Your task to perform on an android device: Open Google Maps and go to "Timeline" Image 0: 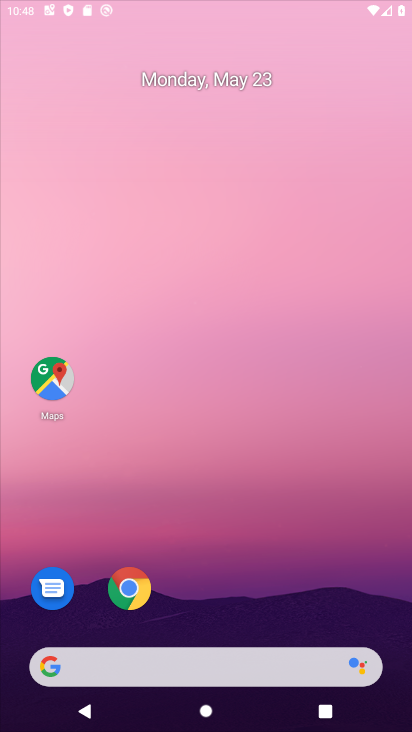
Step 0: press home button
Your task to perform on an android device: Open Google Maps and go to "Timeline" Image 1: 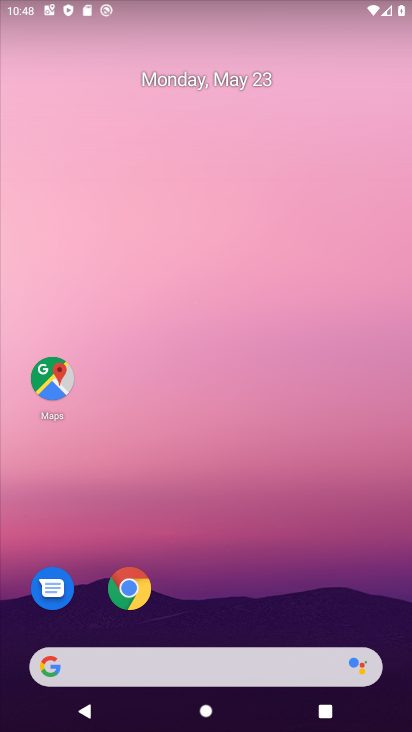
Step 1: click (48, 382)
Your task to perform on an android device: Open Google Maps and go to "Timeline" Image 2: 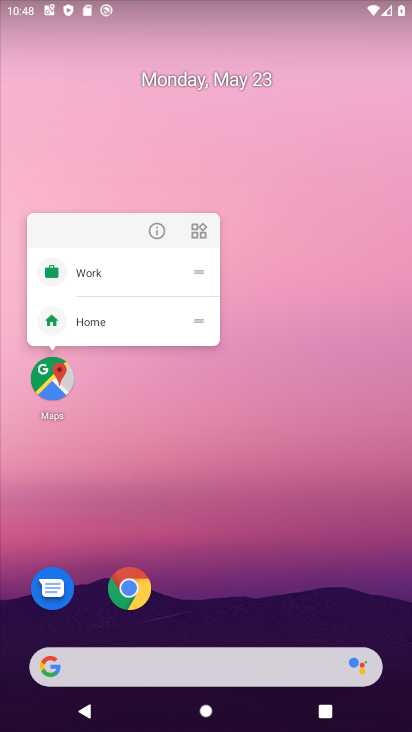
Step 2: click (48, 382)
Your task to perform on an android device: Open Google Maps and go to "Timeline" Image 3: 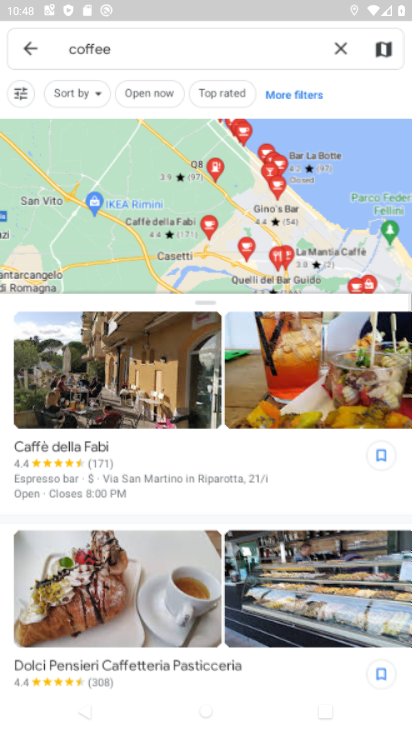
Step 3: click (38, 55)
Your task to perform on an android device: Open Google Maps and go to "Timeline" Image 4: 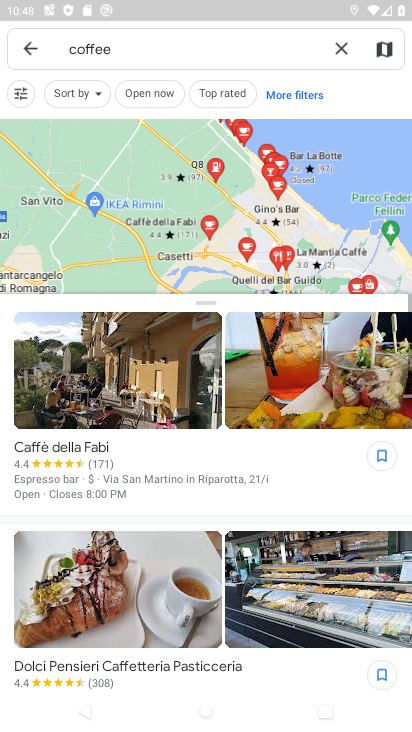
Step 4: click (38, 55)
Your task to perform on an android device: Open Google Maps and go to "Timeline" Image 5: 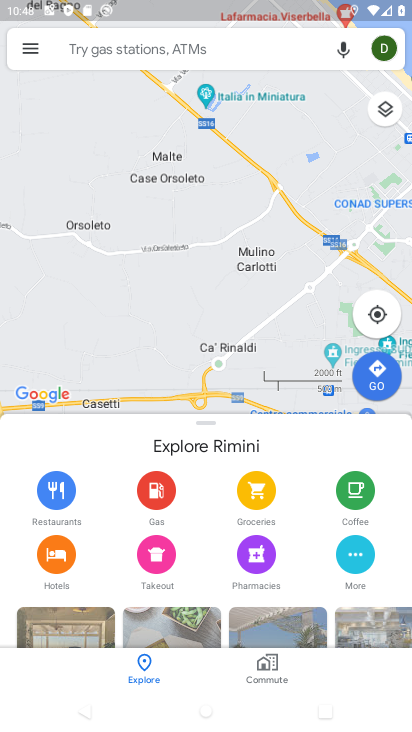
Step 5: click (38, 55)
Your task to perform on an android device: Open Google Maps and go to "Timeline" Image 6: 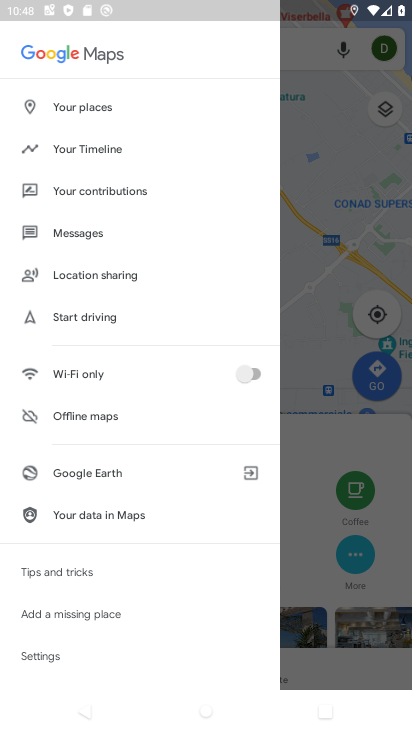
Step 6: click (96, 148)
Your task to perform on an android device: Open Google Maps and go to "Timeline" Image 7: 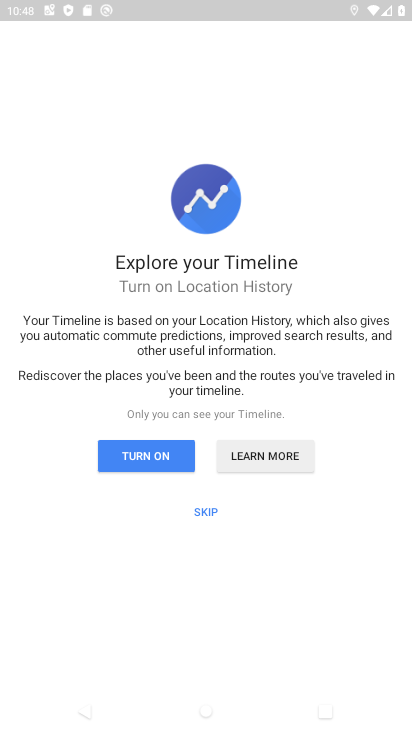
Step 7: click (146, 468)
Your task to perform on an android device: Open Google Maps and go to "Timeline" Image 8: 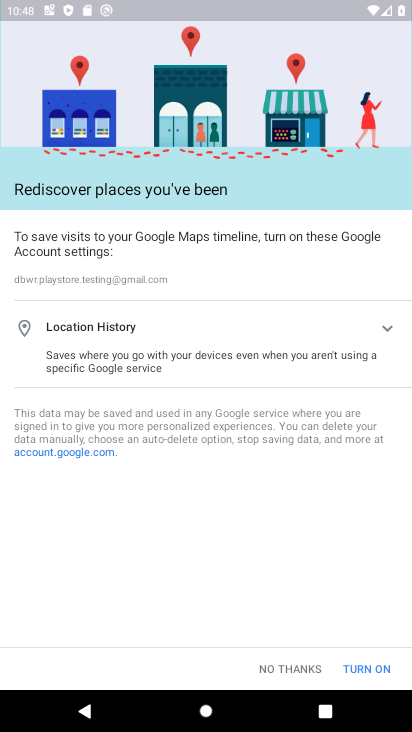
Step 8: click (277, 672)
Your task to perform on an android device: Open Google Maps and go to "Timeline" Image 9: 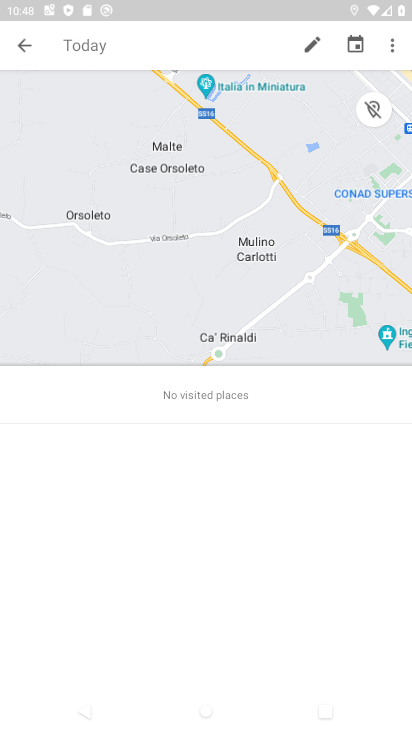
Step 9: task complete